Your task to perform on an android device: What's the weather today? Image 0: 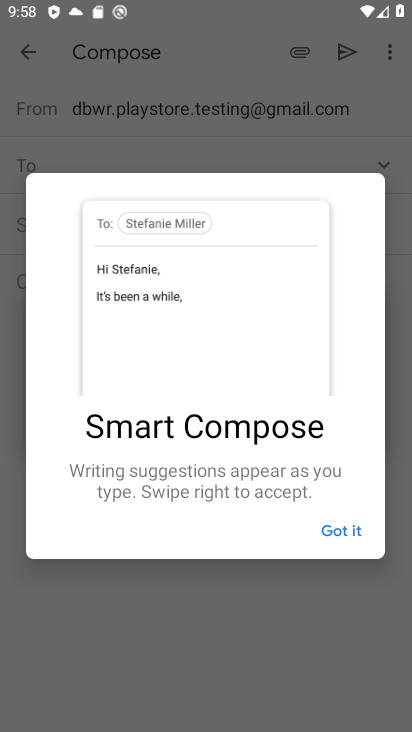
Step 0: press home button
Your task to perform on an android device: What's the weather today? Image 1: 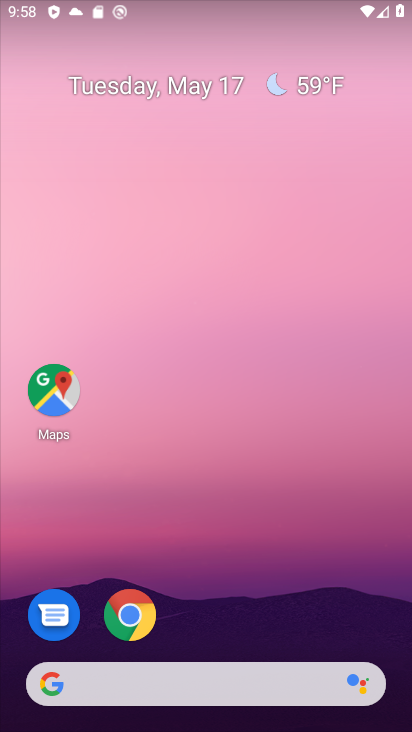
Step 1: click (258, 685)
Your task to perform on an android device: What's the weather today? Image 2: 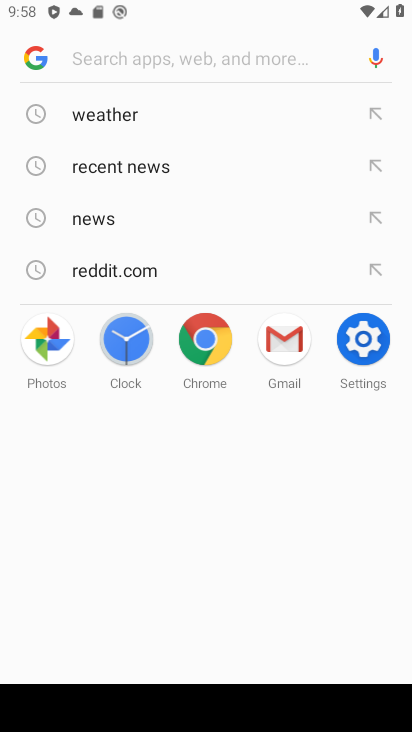
Step 2: click (96, 118)
Your task to perform on an android device: What's the weather today? Image 3: 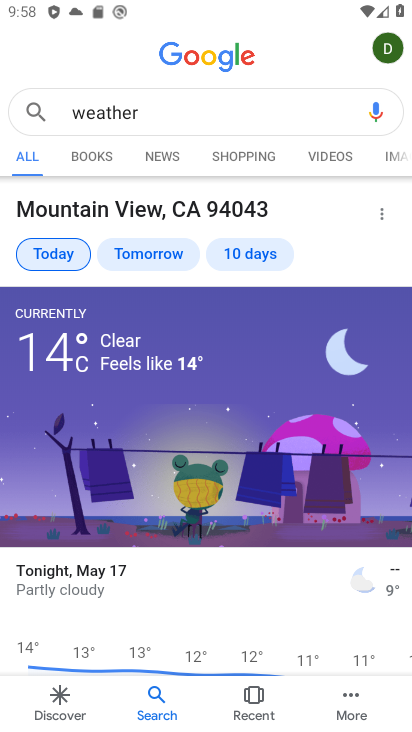
Step 3: task complete